Your task to perform on an android device: open app "Walmart Shopping & Grocery" (install if not already installed) Image 0: 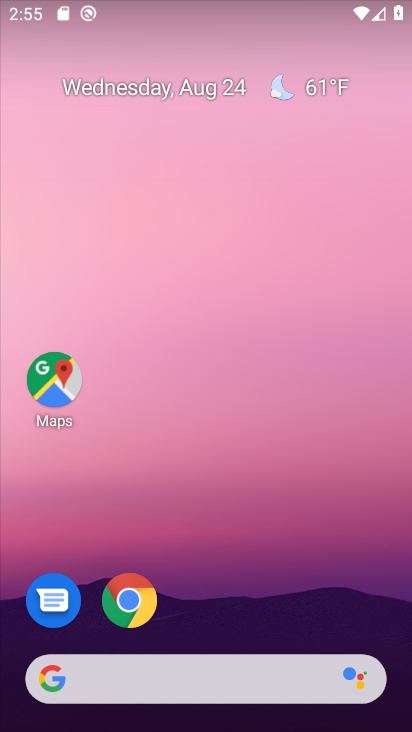
Step 0: drag from (239, 591) to (328, 41)
Your task to perform on an android device: open app "Walmart Shopping & Grocery" (install if not already installed) Image 1: 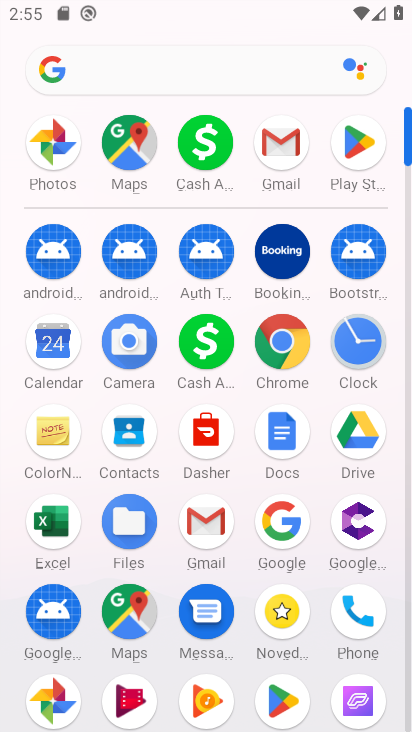
Step 1: click (347, 145)
Your task to perform on an android device: open app "Walmart Shopping & Grocery" (install if not already installed) Image 2: 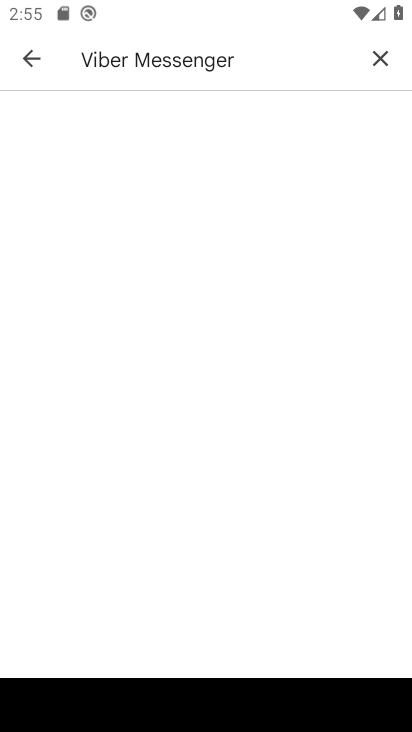
Step 2: click (380, 59)
Your task to perform on an android device: open app "Walmart Shopping & Grocery" (install if not already installed) Image 3: 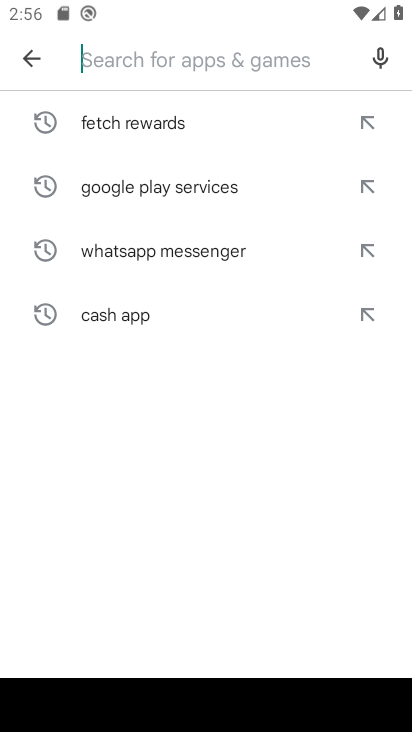
Step 3: click (104, 62)
Your task to perform on an android device: open app "Walmart Shopping & Grocery" (install if not already installed) Image 4: 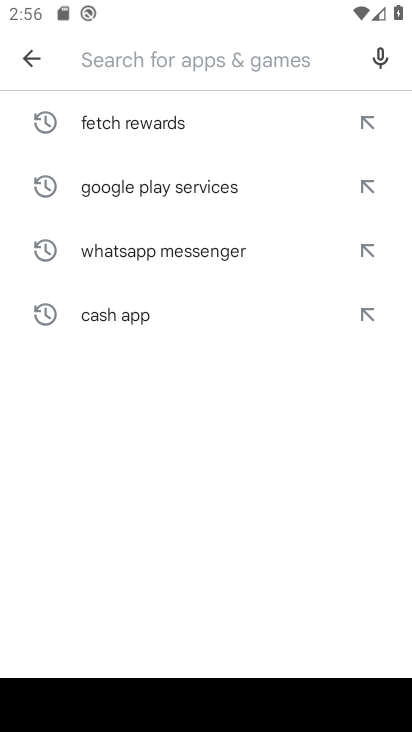
Step 4: type "Walmart Shopping & Grocery"
Your task to perform on an android device: open app "Walmart Shopping & Grocery" (install if not already installed) Image 5: 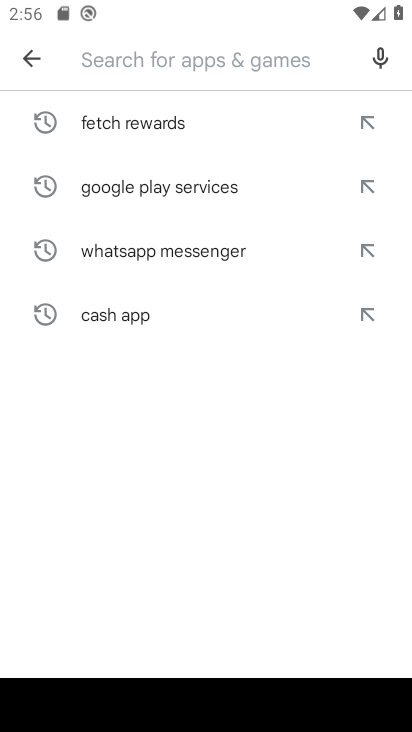
Step 5: click (217, 558)
Your task to perform on an android device: open app "Walmart Shopping & Grocery" (install if not already installed) Image 6: 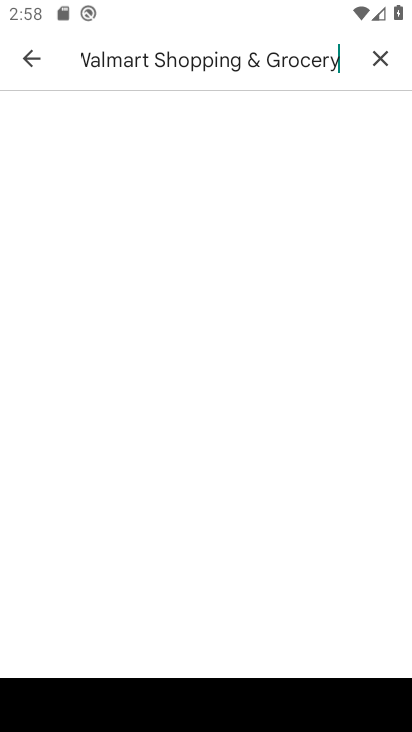
Step 6: task complete